Your task to perform on an android device: Open Youtube and go to the subscriptions tab Image 0: 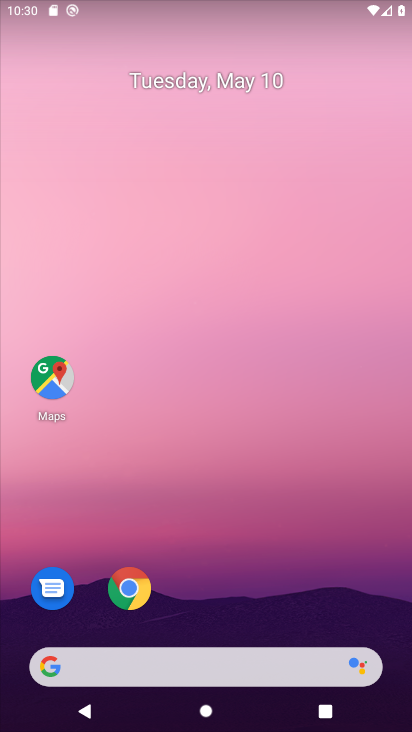
Step 0: drag from (230, 611) to (340, 139)
Your task to perform on an android device: Open Youtube and go to the subscriptions tab Image 1: 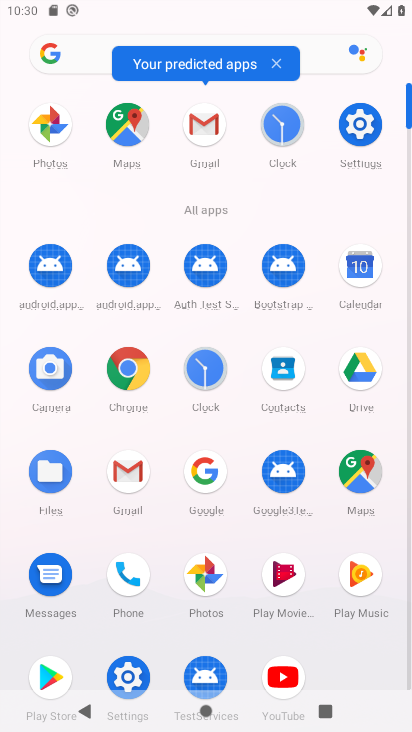
Step 1: drag from (246, 625) to (240, 388)
Your task to perform on an android device: Open Youtube and go to the subscriptions tab Image 2: 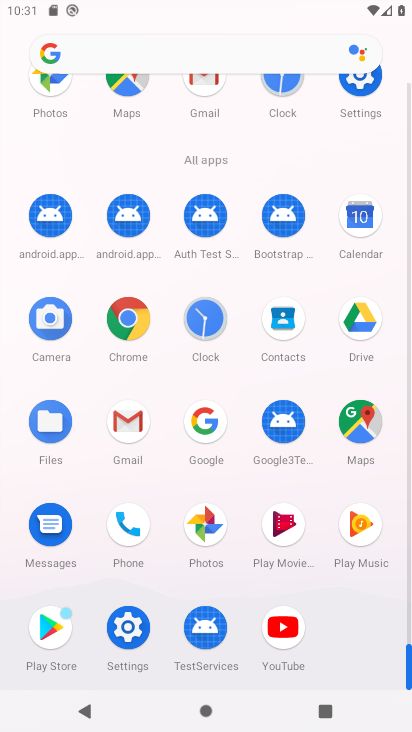
Step 2: click (296, 630)
Your task to perform on an android device: Open Youtube and go to the subscriptions tab Image 3: 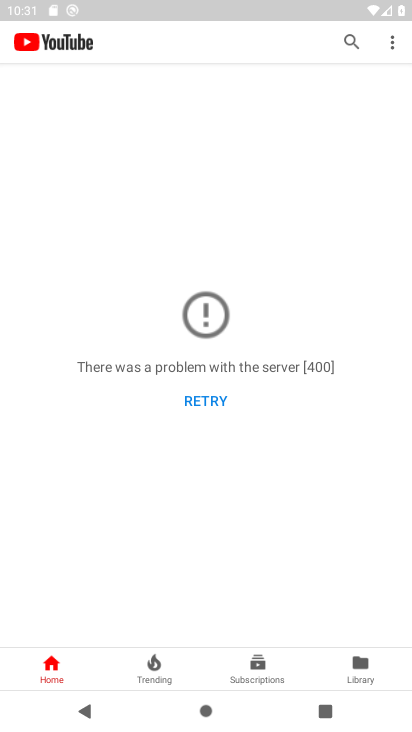
Step 3: click (249, 665)
Your task to perform on an android device: Open Youtube and go to the subscriptions tab Image 4: 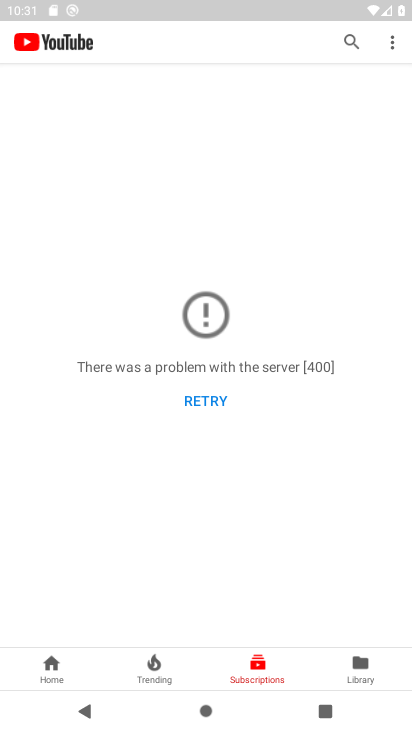
Step 4: task complete